Your task to perform on an android device: open sync settings in chrome Image 0: 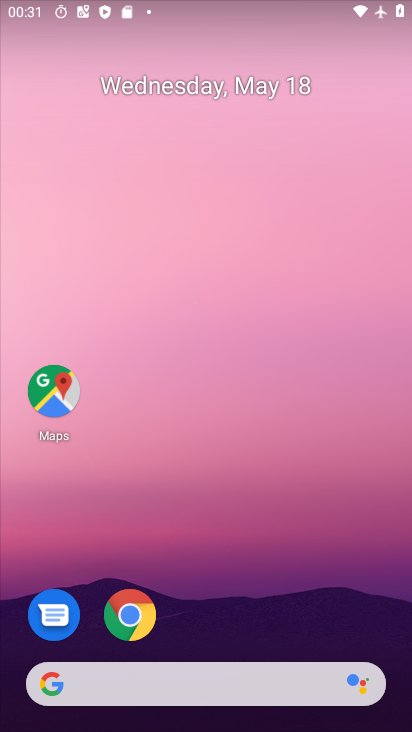
Step 0: click (144, 617)
Your task to perform on an android device: open sync settings in chrome Image 1: 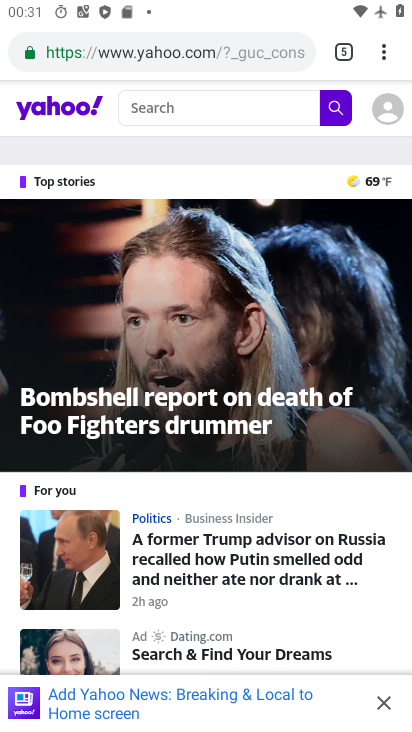
Step 1: click (375, 53)
Your task to perform on an android device: open sync settings in chrome Image 2: 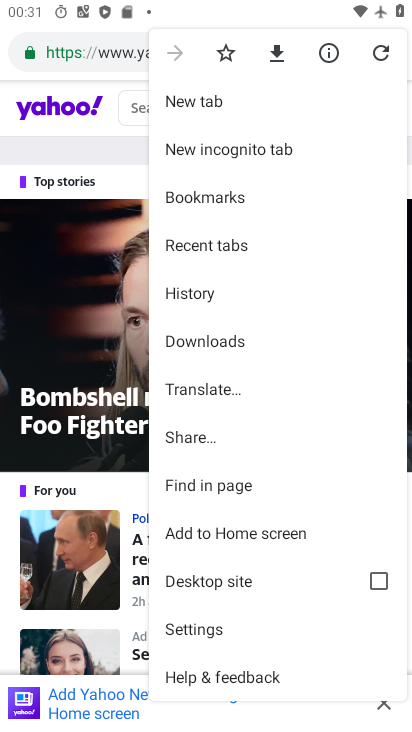
Step 2: click (207, 621)
Your task to perform on an android device: open sync settings in chrome Image 3: 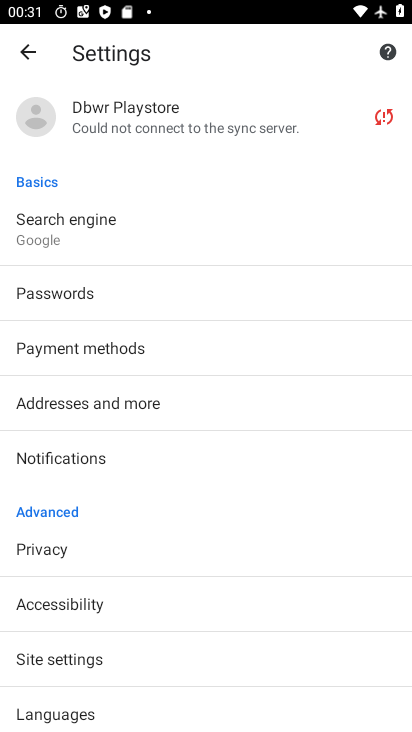
Step 3: drag from (152, 657) to (201, 331)
Your task to perform on an android device: open sync settings in chrome Image 4: 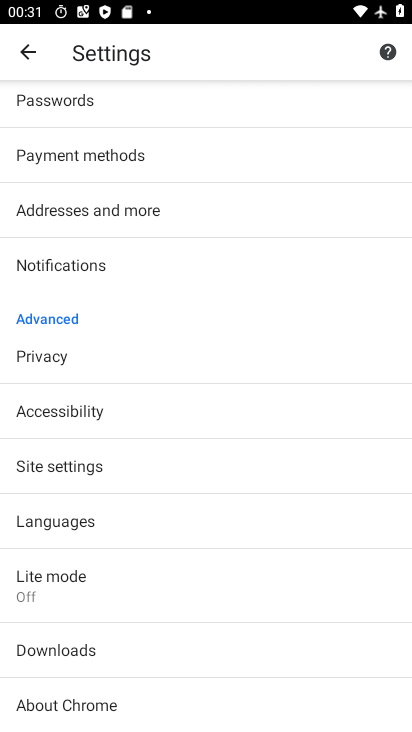
Step 4: drag from (191, 155) to (191, 491)
Your task to perform on an android device: open sync settings in chrome Image 5: 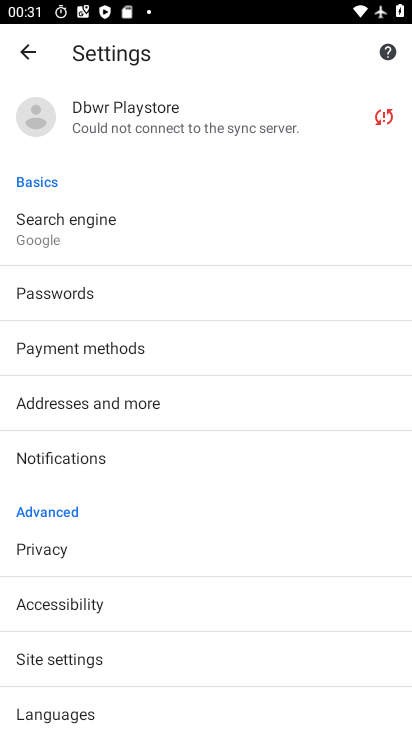
Step 5: click (164, 125)
Your task to perform on an android device: open sync settings in chrome Image 6: 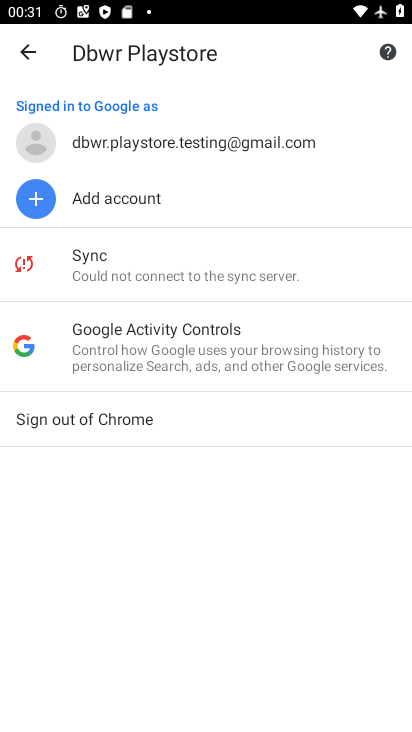
Step 6: click (130, 259)
Your task to perform on an android device: open sync settings in chrome Image 7: 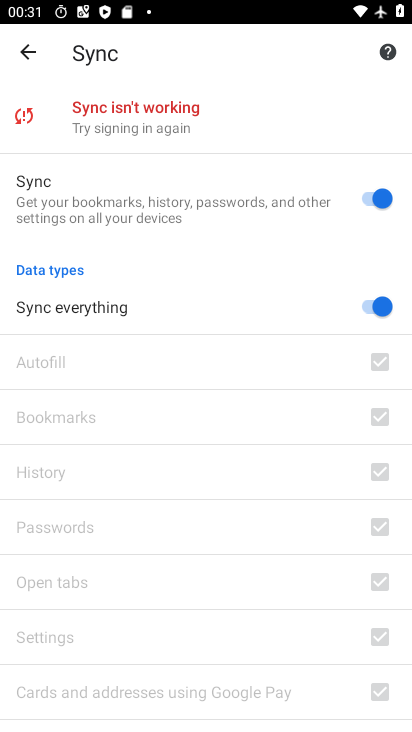
Step 7: task complete